Your task to perform on an android device: turn notification dots on Image 0: 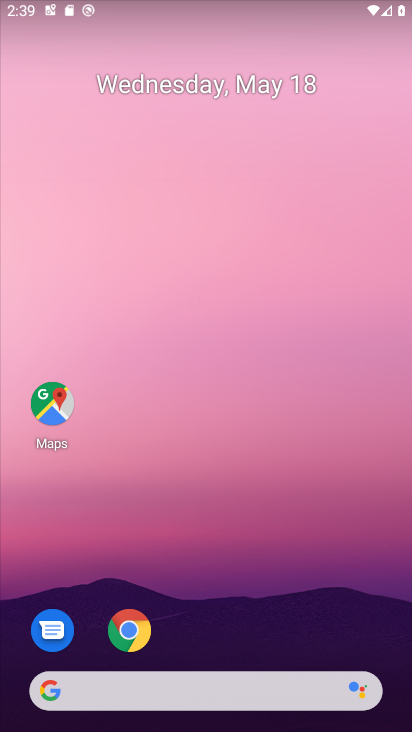
Step 0: press home button
Your task to perform on an android device: turn notification dots on Image 1: 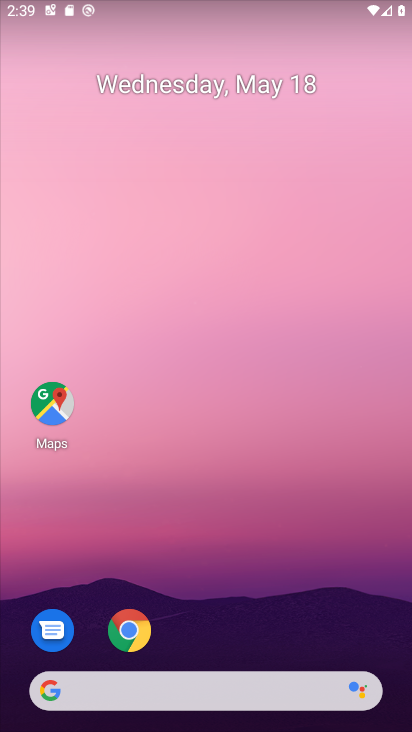
Step 1: drag from (219, 643) to (238, 185)
Your task to perform on an android device: turn notification dots on Image 2: 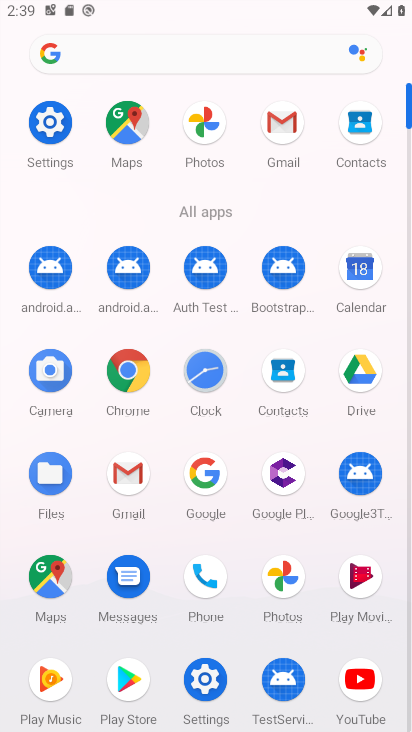
Step 2: click (45, 124)
Your task to perform on an android device: turn notification dots on Image 3: 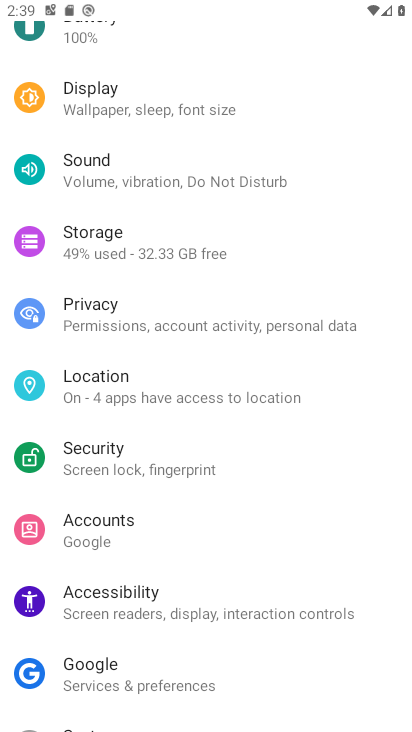
Step 3: drag from (137, 98) to (198, 530)
Your task to perform on an android device: turn notification dots on Image 4: 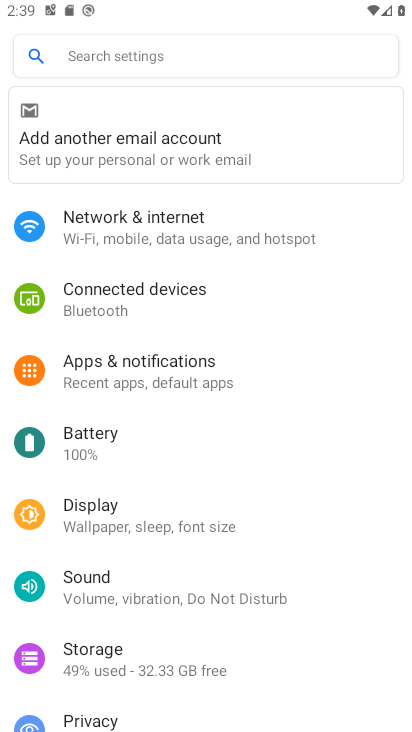
Step 4: click (187, 364)
Your task to perform on an android device: turn notification dots on Image 5: 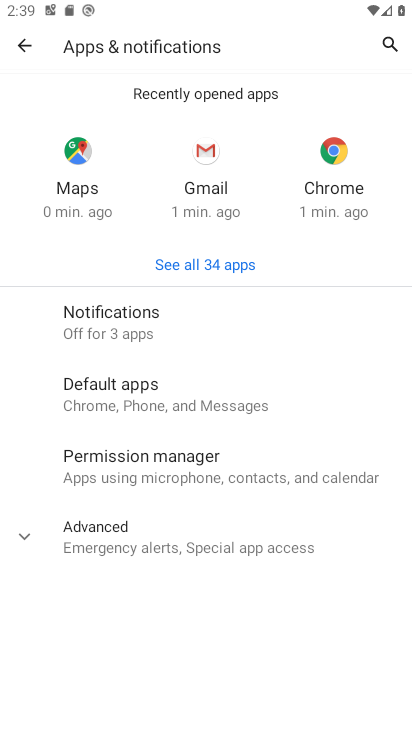
Step 5: click (175, 319)
Your task to perform on an android device: turn notification dots on Image 6: 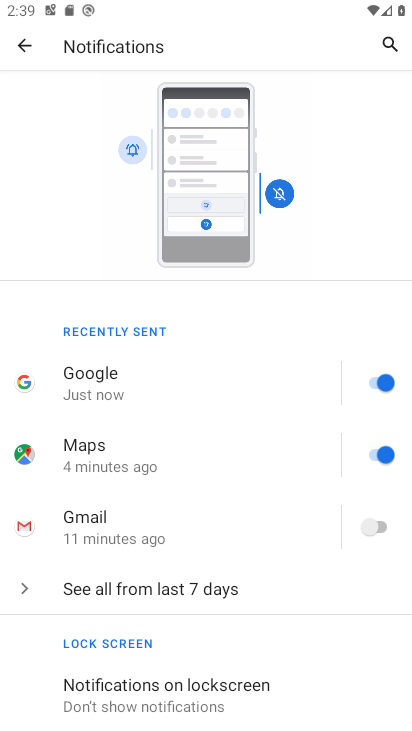
Step 6: drag from (202, 651) to (245, 225)
Your task to perform on an android device: turn notification dots on Image 7: 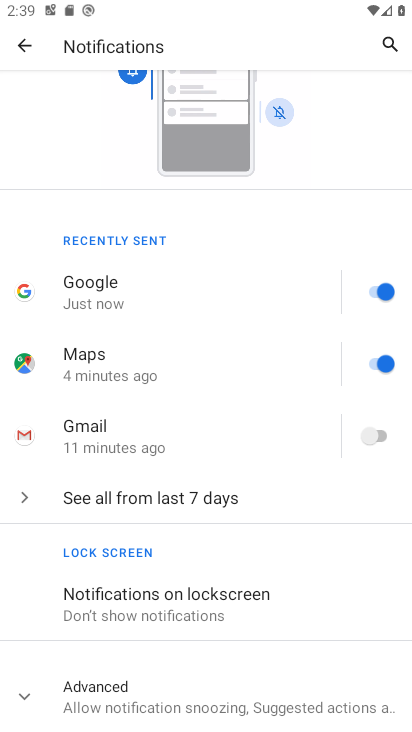
Step 7: click (124, 685)
Your task to perform on an android device: turn notification dots on Image 8: 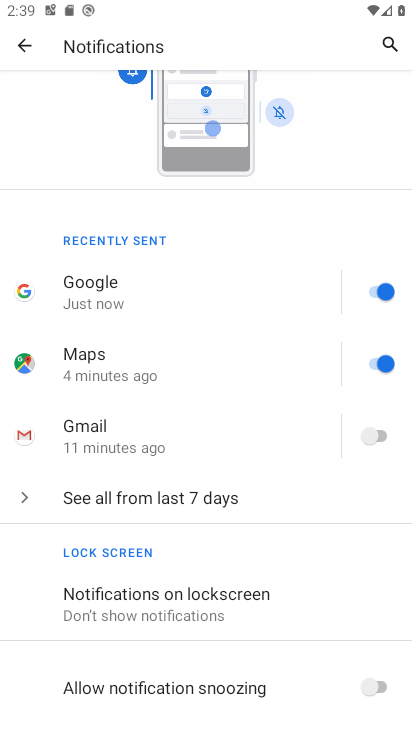
Step 8: task complete